Your task to perform on an android device: turn on javascript in the chrome app Image 0: 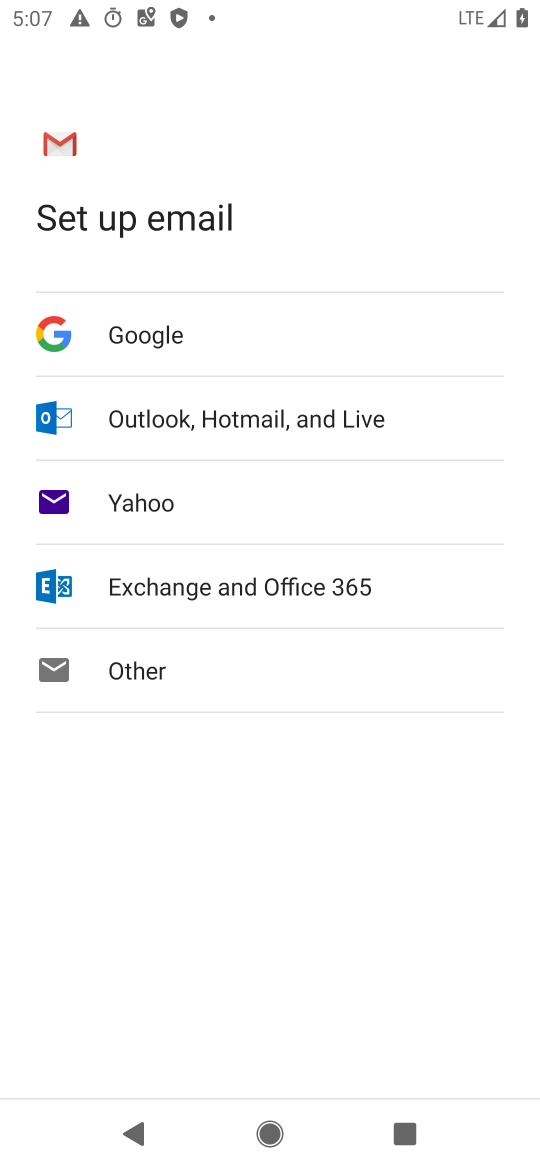
Step 0: press home button
Your task to perform on an android device: turn on javascript in the chrome app Image 1: 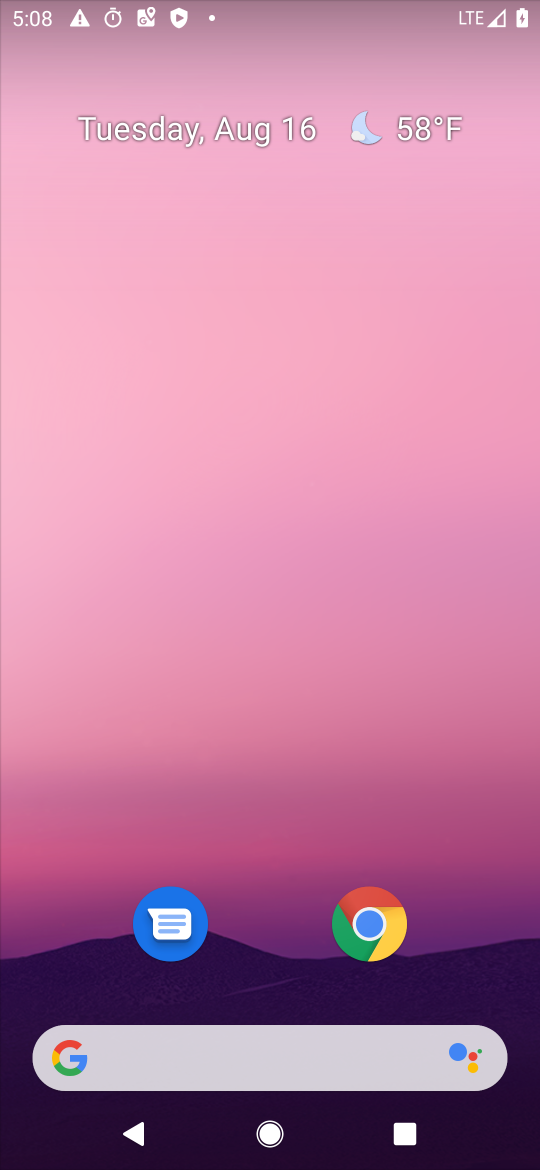
Step 1: click (356, 920)
Your task to perform on an android device: turn on javascript in the chrome app Image 2: 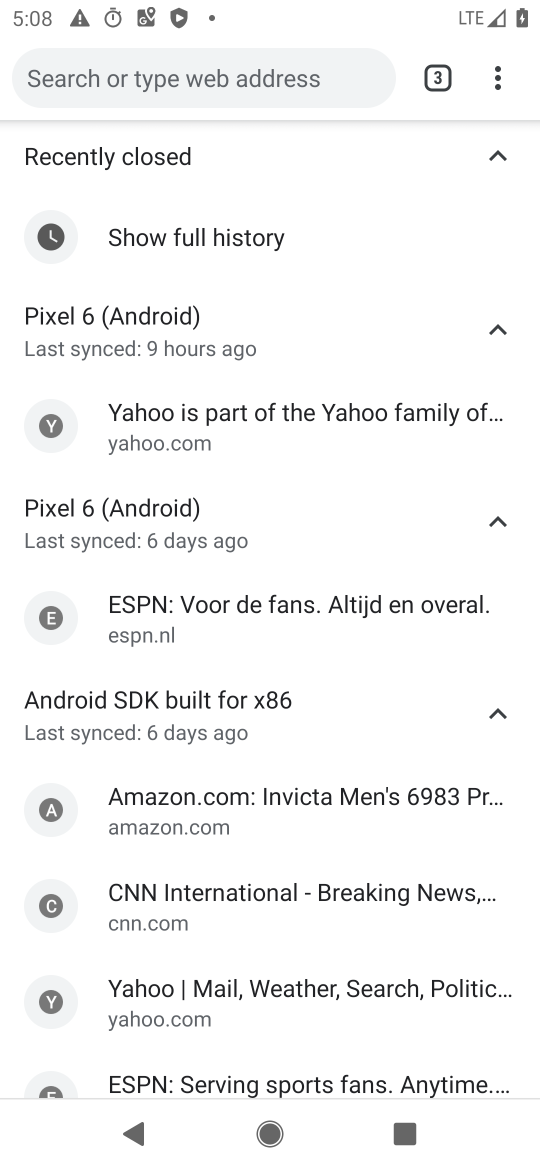
Step 2: click (488, 86)
Your task to perform on an android device: turn on javascript in the chrome app Image 3: 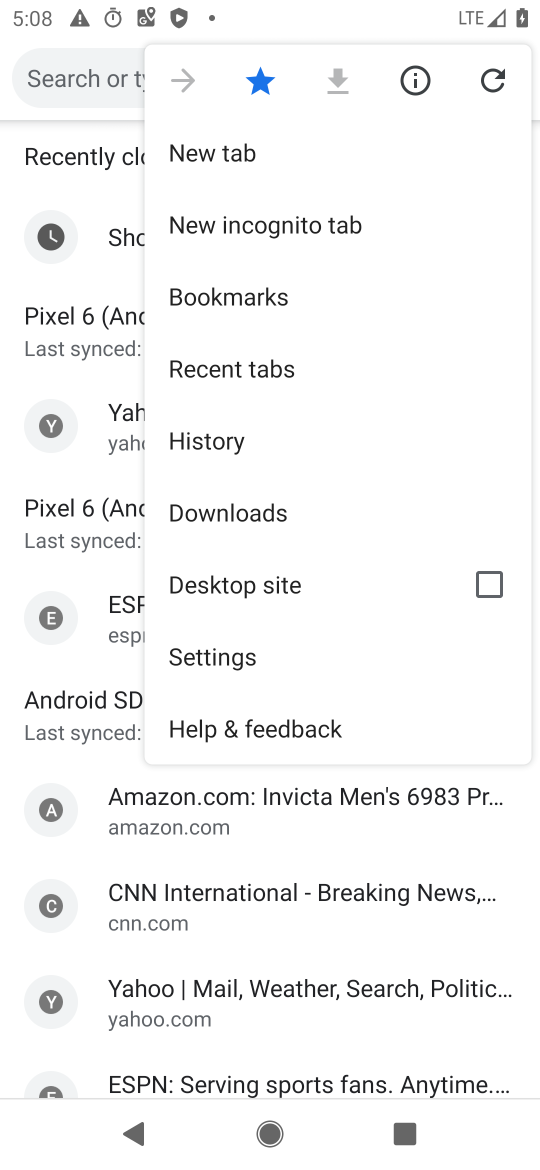
Step 3: click (215, 668)
Your task to perform on an android device: turn on javascript in the chrome app Image 4: 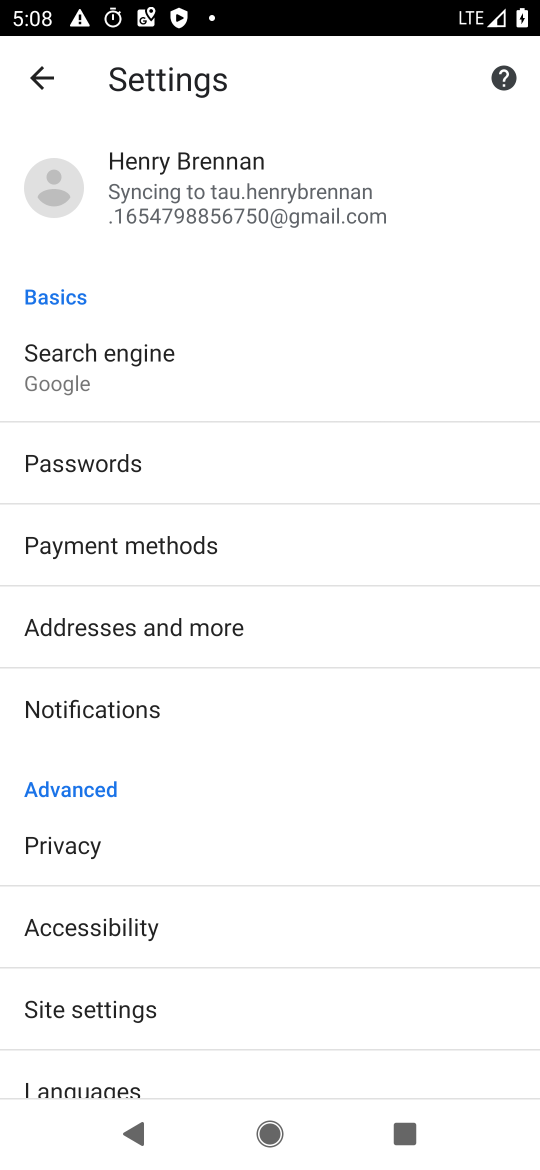
Step 4: click (118, 1026)
Your task to perform on an android device: turn on javascript in the chrome app Image 5: 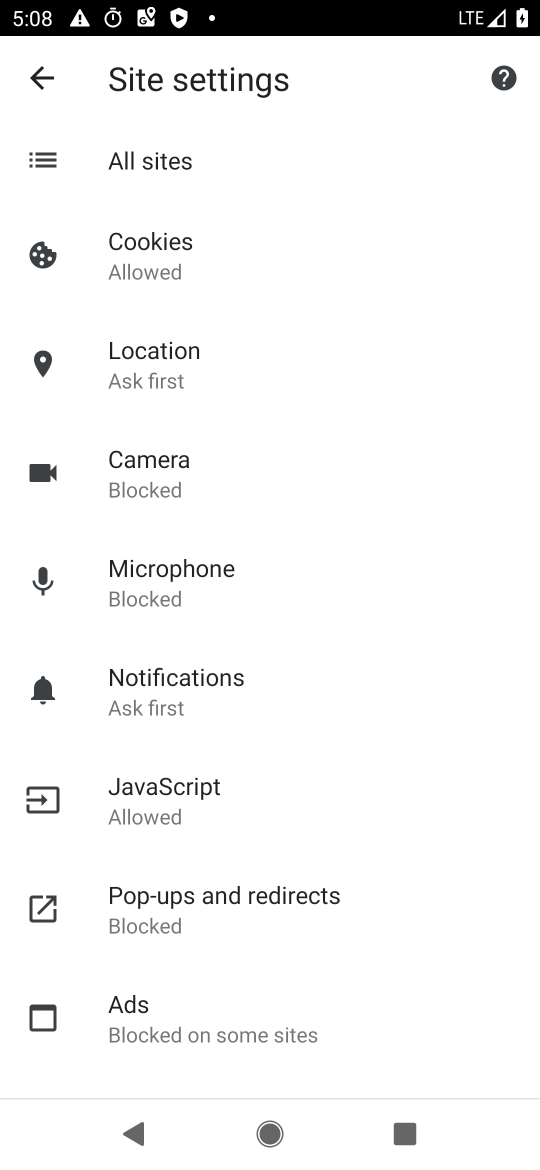
Step 5: click (234, 781)
Your task to perform on an android device: turn on javascript in the chrome app Image 6: 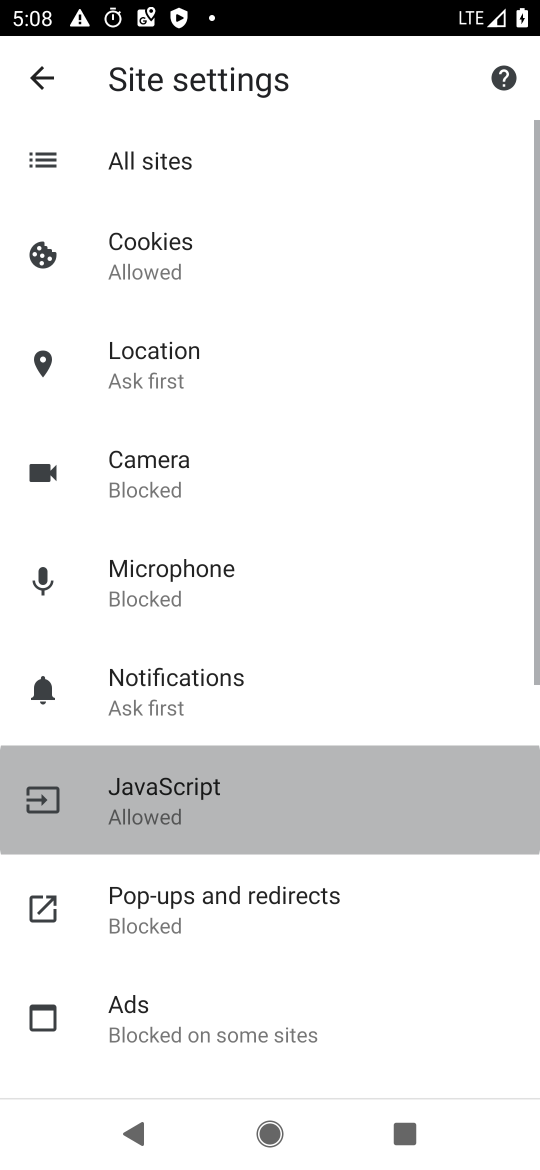
Step 6: click (234, 781)
Your task to perform on an android device: turn on javascript in the chrome app Image 7: 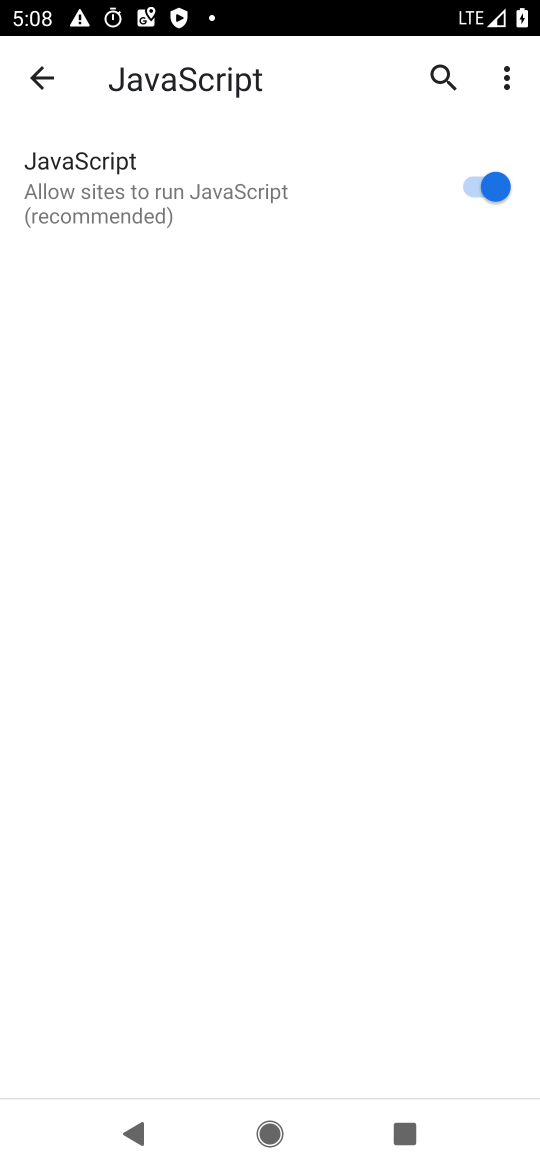
Step 7: task complete